Your task to perform on an android device: Open wifi settings Image 0: 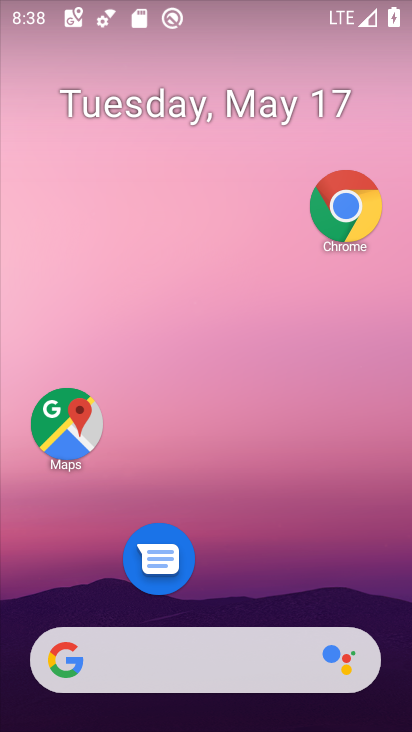
Step 0: drag from (263, 673) to (315, 261)
Your task to perform on an android device: Open wifi settings Image 1: 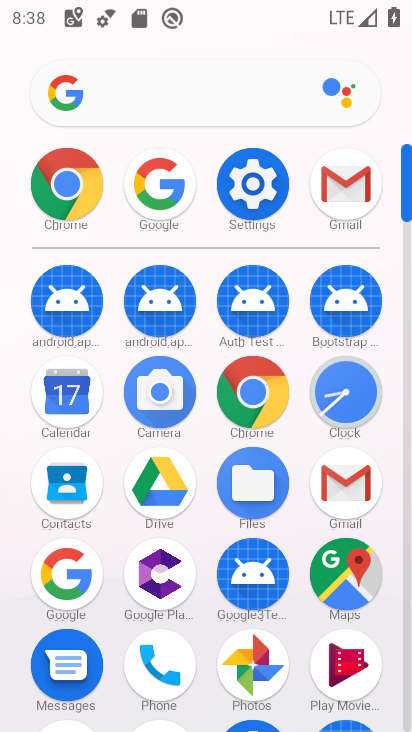
Step 1: drag from (267, 517) to (267, 457)
Your task to perform on an android device: Open wifi settings Image 2: 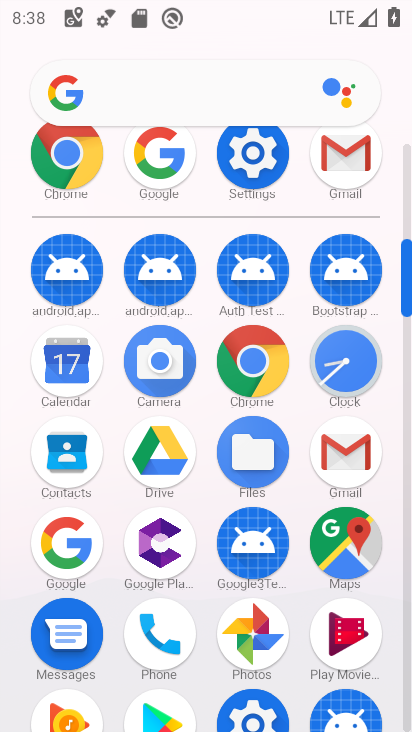
Step 2: click (249, 150)
Your task to perform on an android device: Open wifi settings Image 3: 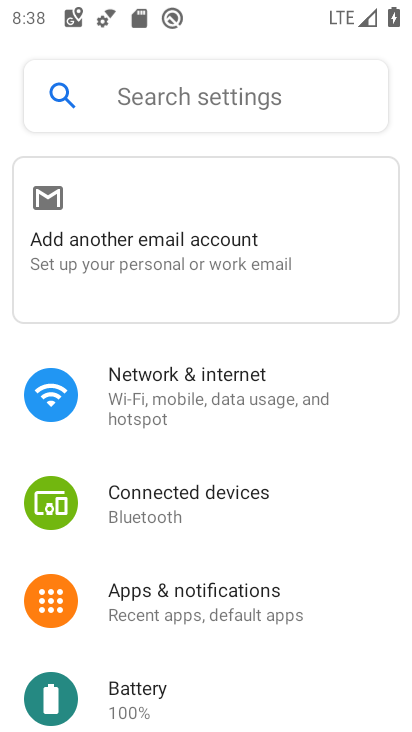
Step 3: click (219, 420)
Your task to perform on an android device: Open wifi settings Image 4: 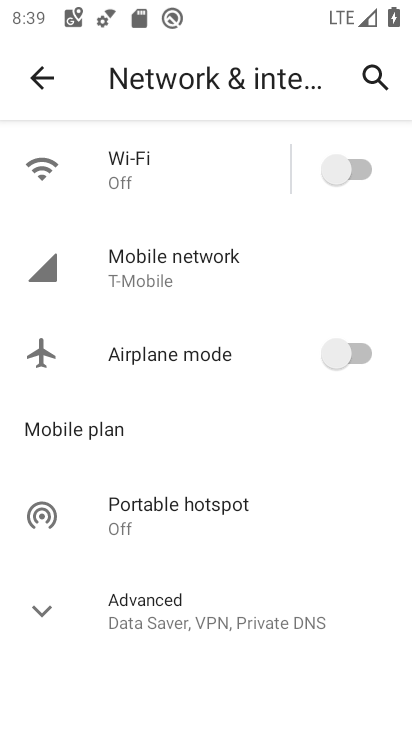
Step 4: click (196, 189)
Your task to perform on an android device: Open wifi settings Image 5: 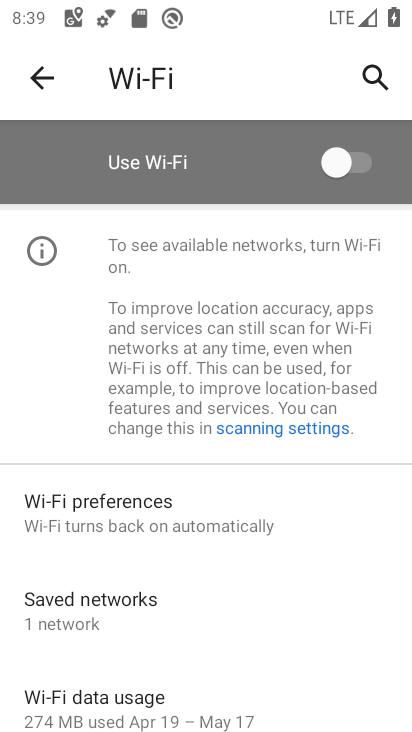
Step 5: task complete